Your task to perform on an android device: change the clock display to analog Image 0: 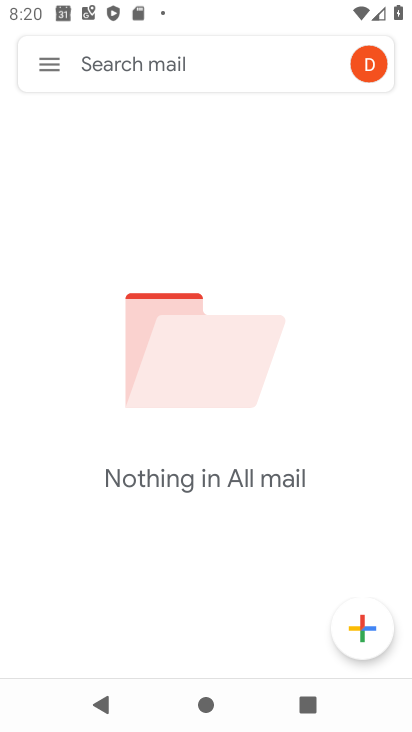
Step 0: press home button
Your task to perform on an android device: change the clock display to analog Image 1: 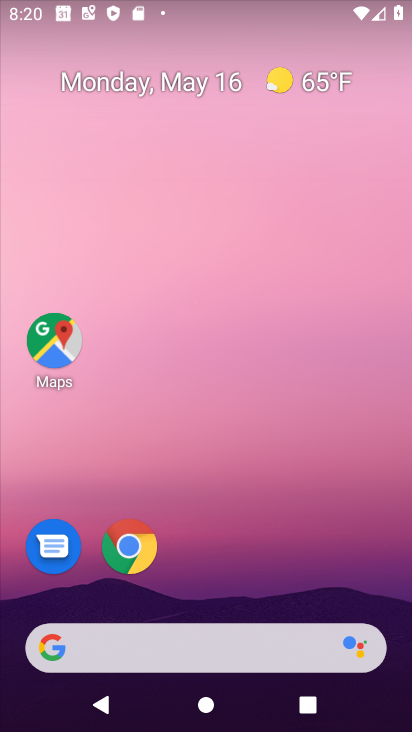
Step 1: drag from (218, 560) to (242, 156)
Your task to perform on an android device: change the clock display to analog Image 2: 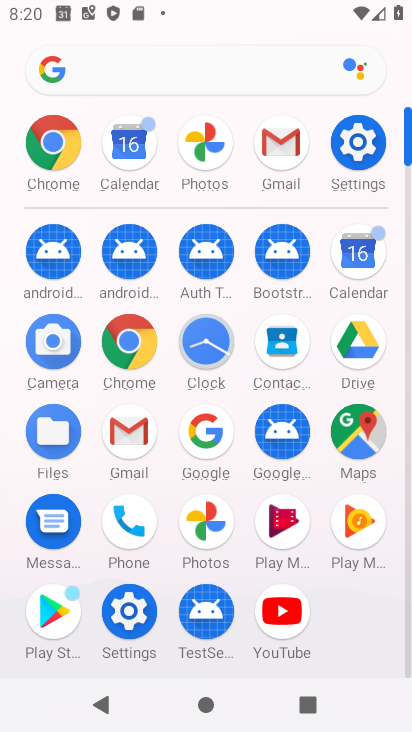
Step 2: click (191, 365)
Your task to perform on an android device: change the clock display to analog Image 3: 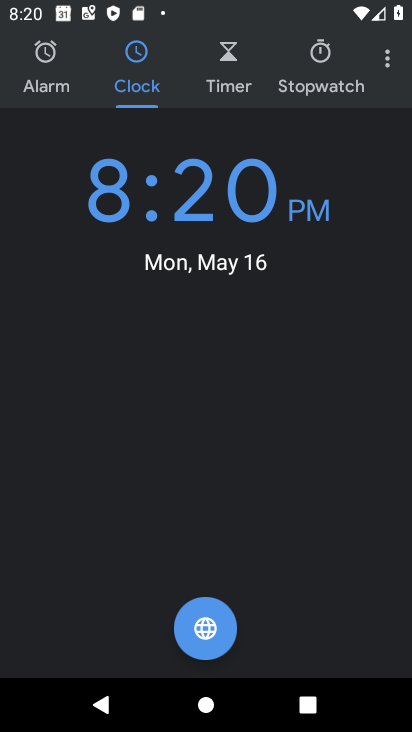
Step 3: click (391, 70)
Your task to perform on an android device: change the clock display to analog Image 4: 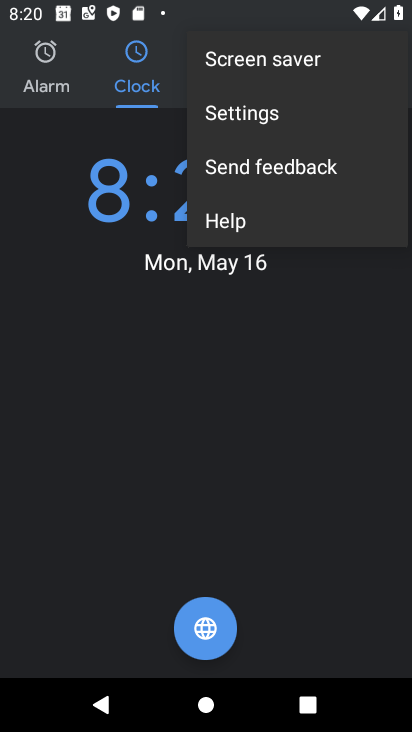
Step 4: click (258, 102)
Your task to perform on an android device: change the clock display to analog Image 5: 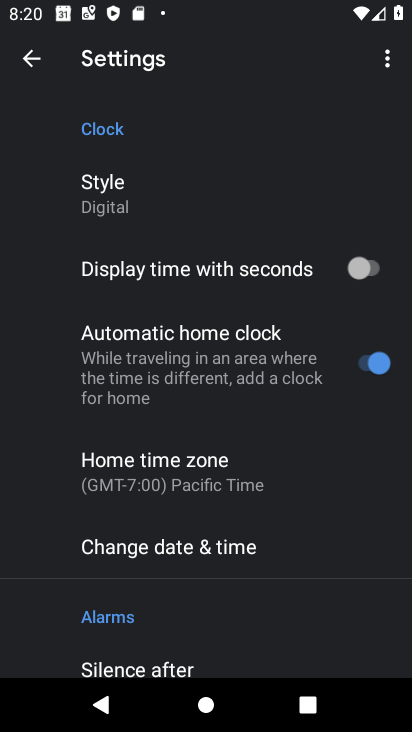
Step 5: click (195, 538)
Your task to perform on an android device: change the clock display to analog Image 6: 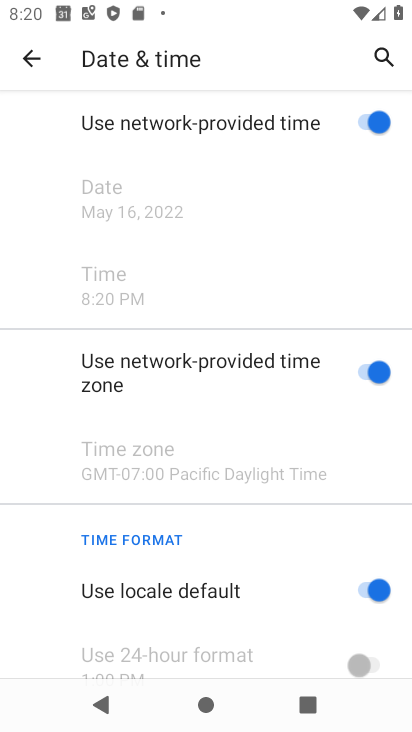
Step 6: drag from (236, 216) to (232, 497)
Your task to perform on an android device: change the clock display to analog Image 7: 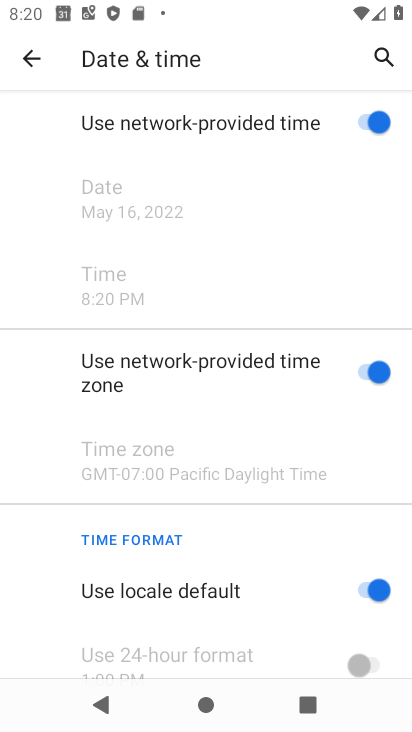
Step 7: click (34, 67)
Your task to perform on an android device: change the clock display to analog Image 8: 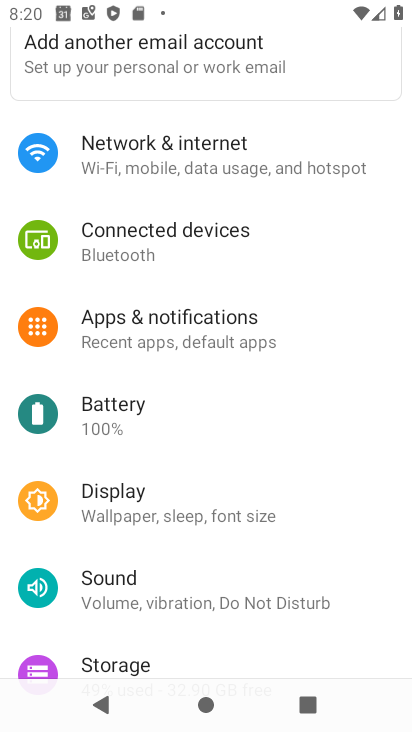
Step 8: drag from (92, 111) to (94, 255)
Your task to perform on an android device: change the clock display to analog Image 9: 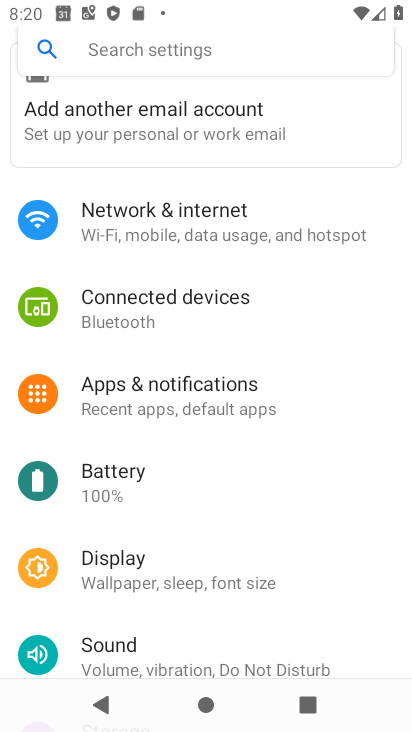
Step 9: press home button
Your task to perform on an android device: change the clock display to analog Image 10: 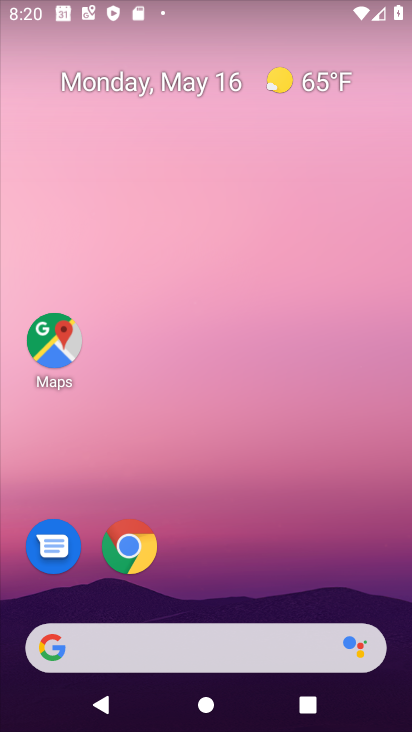
Step 10: drag from (281, 564) to (314, 158)
Your task to perform on an android device: change the clock display to analog Image 11: 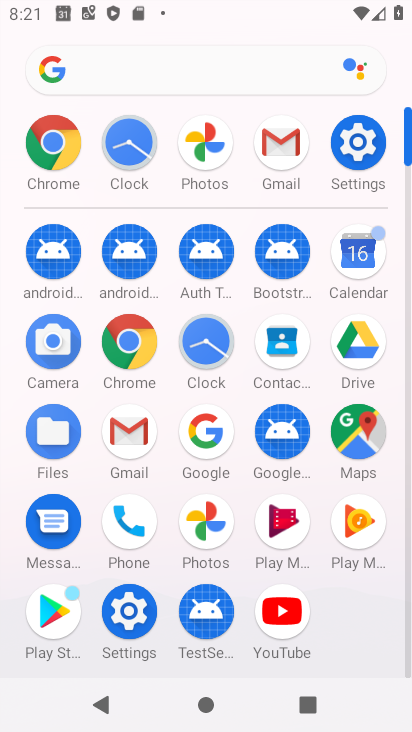
Step 11: click (198, 328)
Your task to perform on an android device: change the clock display to analog Image 12: 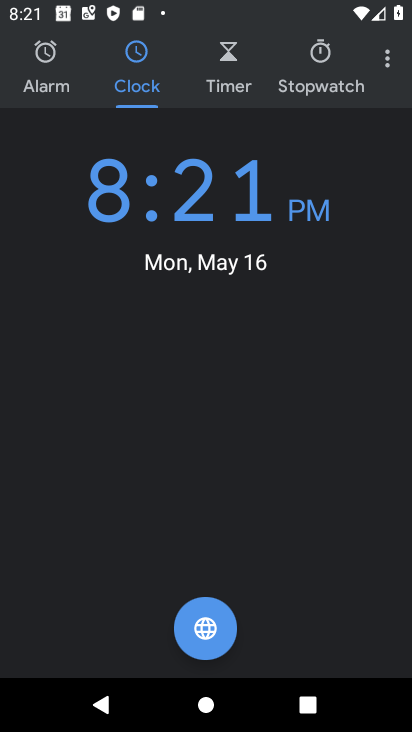
Step 12: click (408, 57)
Your task to perform on an android device: change the clock display to analog Image 13: 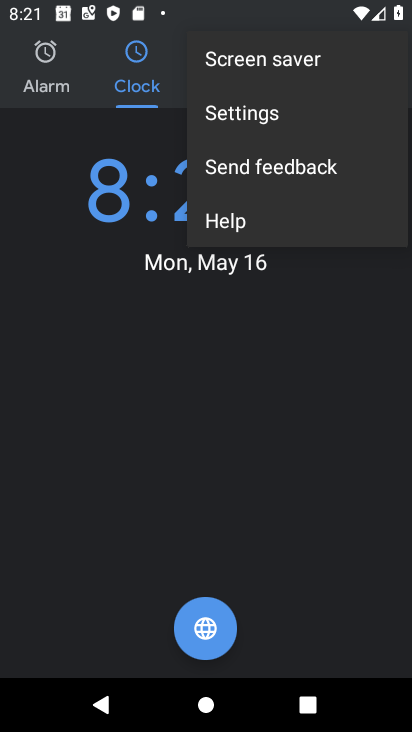
Step 13: click (242, 120)
Your task to perform on an android device: change the clock display to analog Image 14: 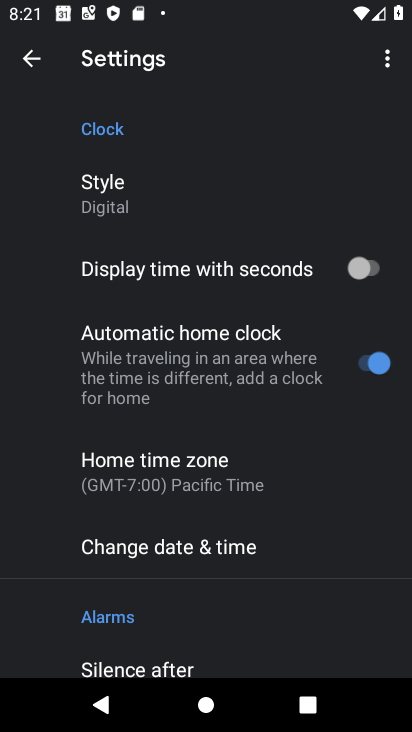
Step 14: click (228, 146)
Your task to perform on an android device: change the clock display to analog Image 15: 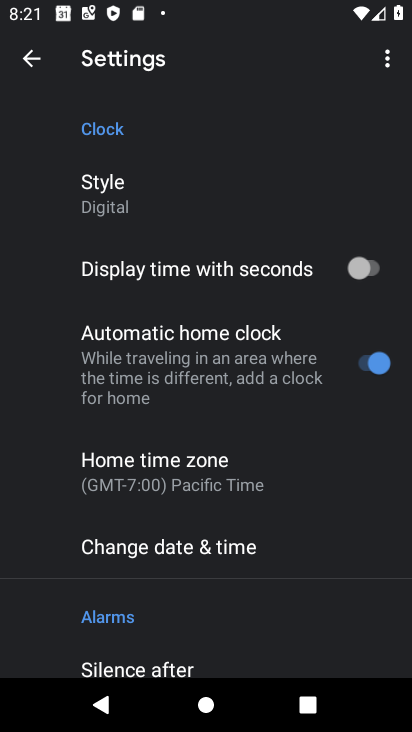
Step 15: click (215, 180)
Your task to perform on an android device: change the clock display to analog Image 16: 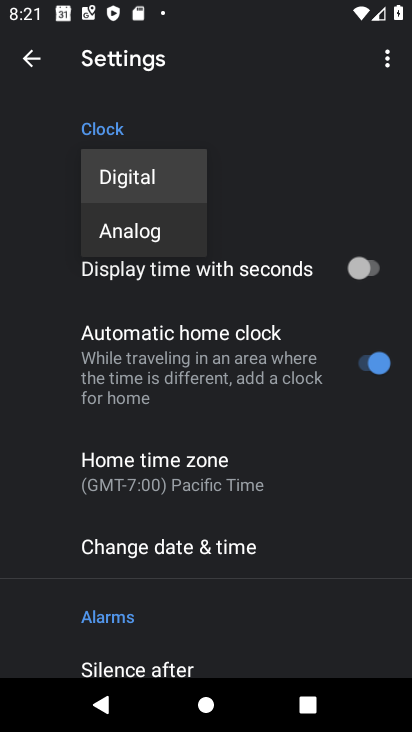
Step 16: click (186, 220)
Your task to perform on an android device: change the clock display to analog Image 17: 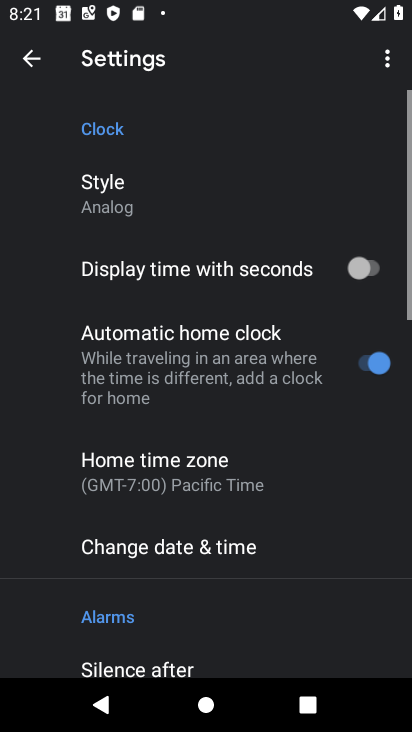
Step 17: task complete